Your task to perform on an android device: Go to display settings Image 0: 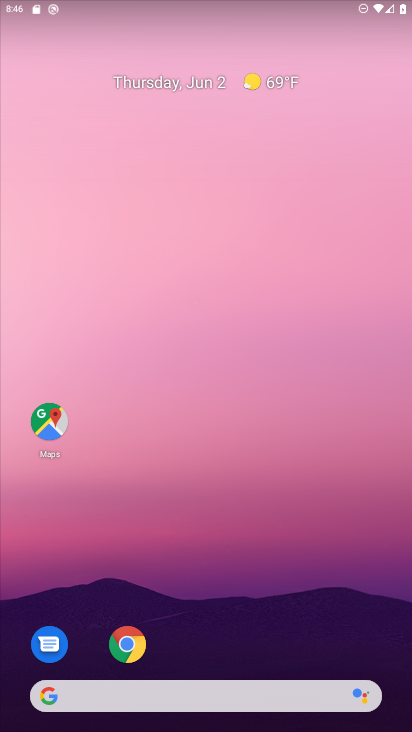
Step 0: drag from (237, 634) to (184, 12)
Your task to perform on an android device: Go to display settings Image 1: 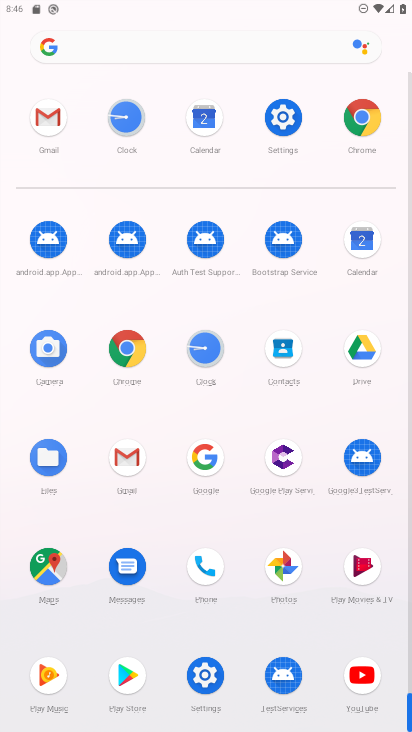
Step 1: drag from (9, 619) to (0, 198)
Your task to perform on an android device: Go to display settings Image 2: 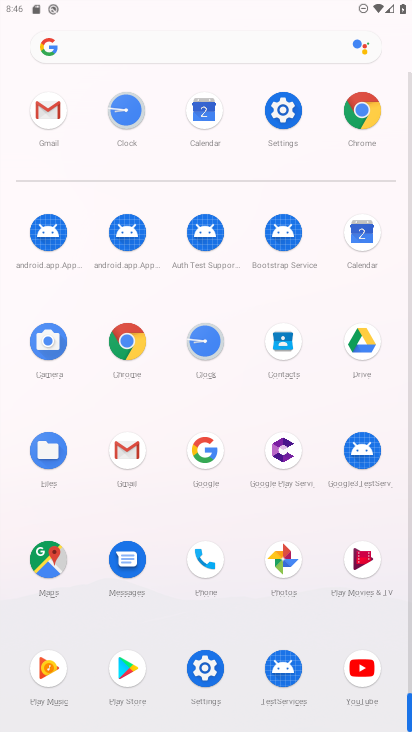
Step 2: click (201, 663)
Your task to perform on an android device: Go to display settings Image 3: 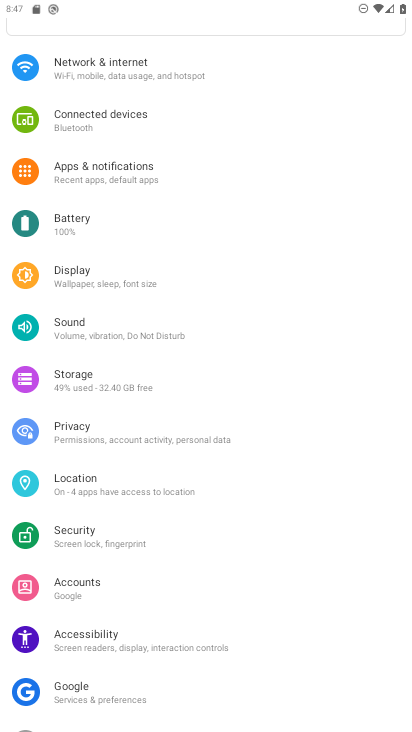
Step 3: click (96, 286)
Your task to perform on an android device: Go to display settings Image 4: 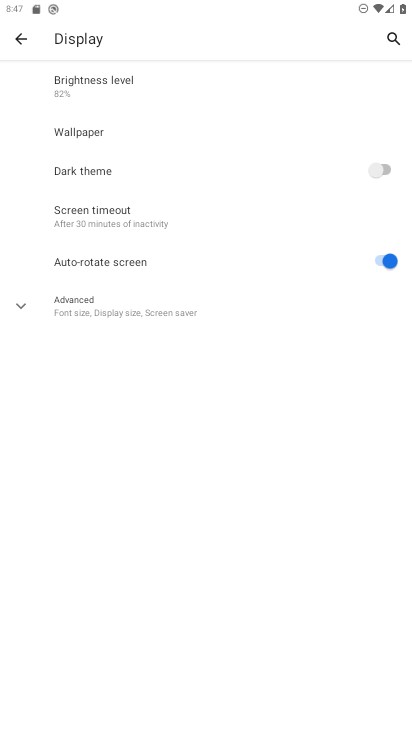
Step 4: click (45, 312)
Your task to perform on an android device: Go to display settings Image 5: 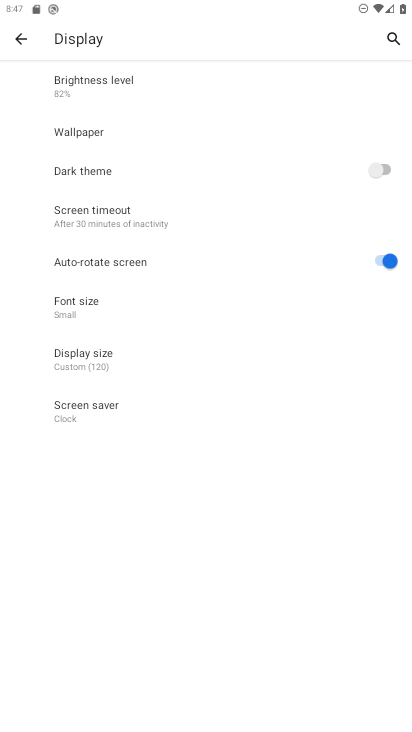
Step 5: task complete